Your task to perform on an android device: open app "Clock" Image 0: 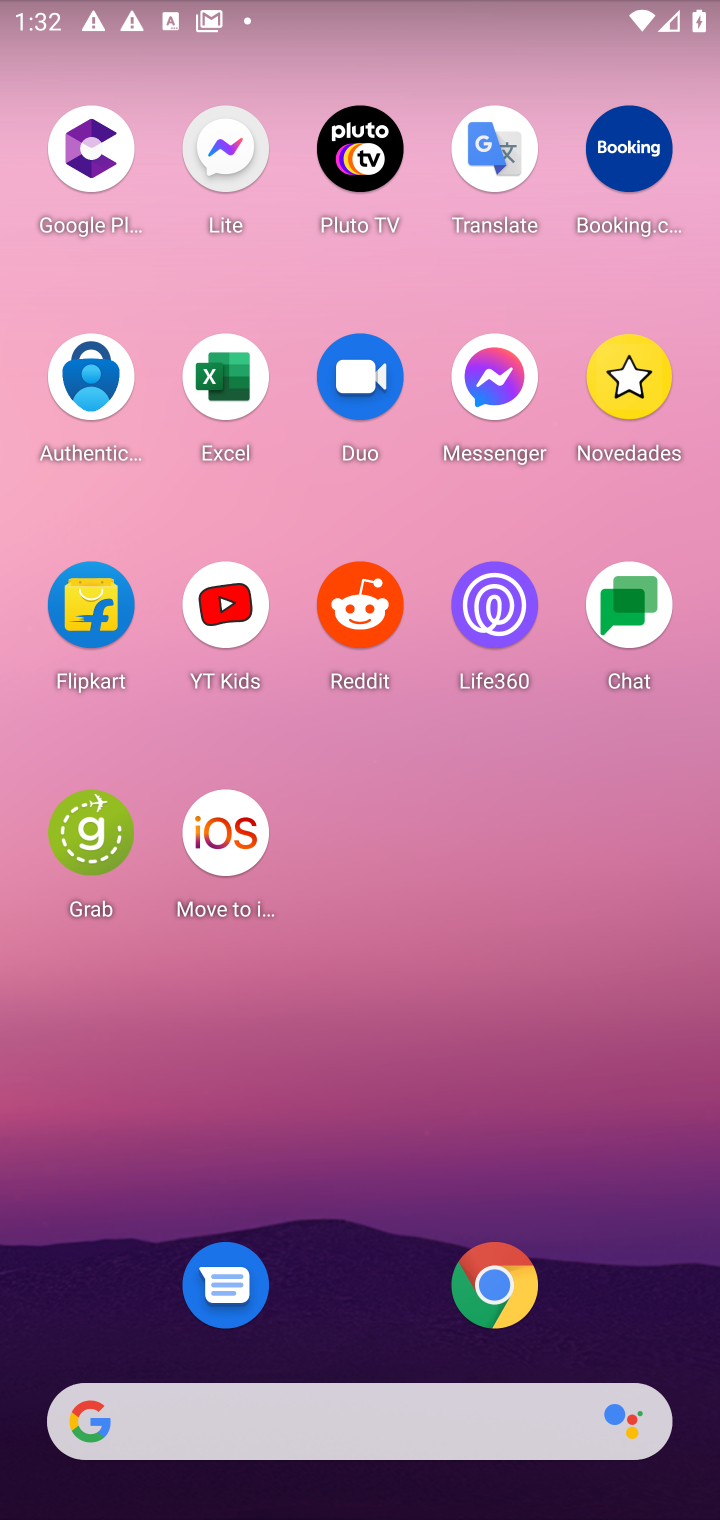
Step 0: drag from (472, 1162) to (554, 111)
Your task to perform on an android device: open app "Clock" Image 1: 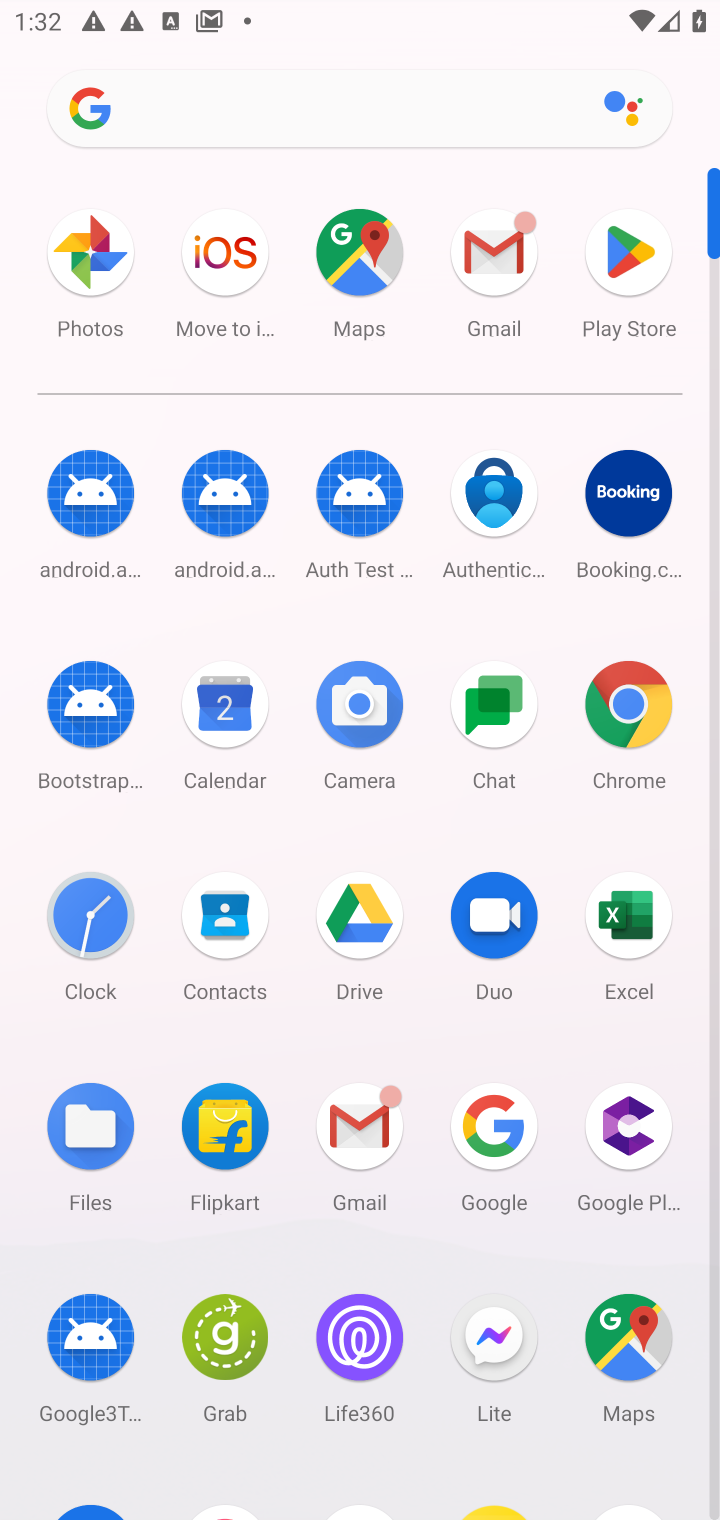
Step 1: drag from (434, 1230) to (507, 545)
Your task to perform on an android device: open app "Clock" Image 2: 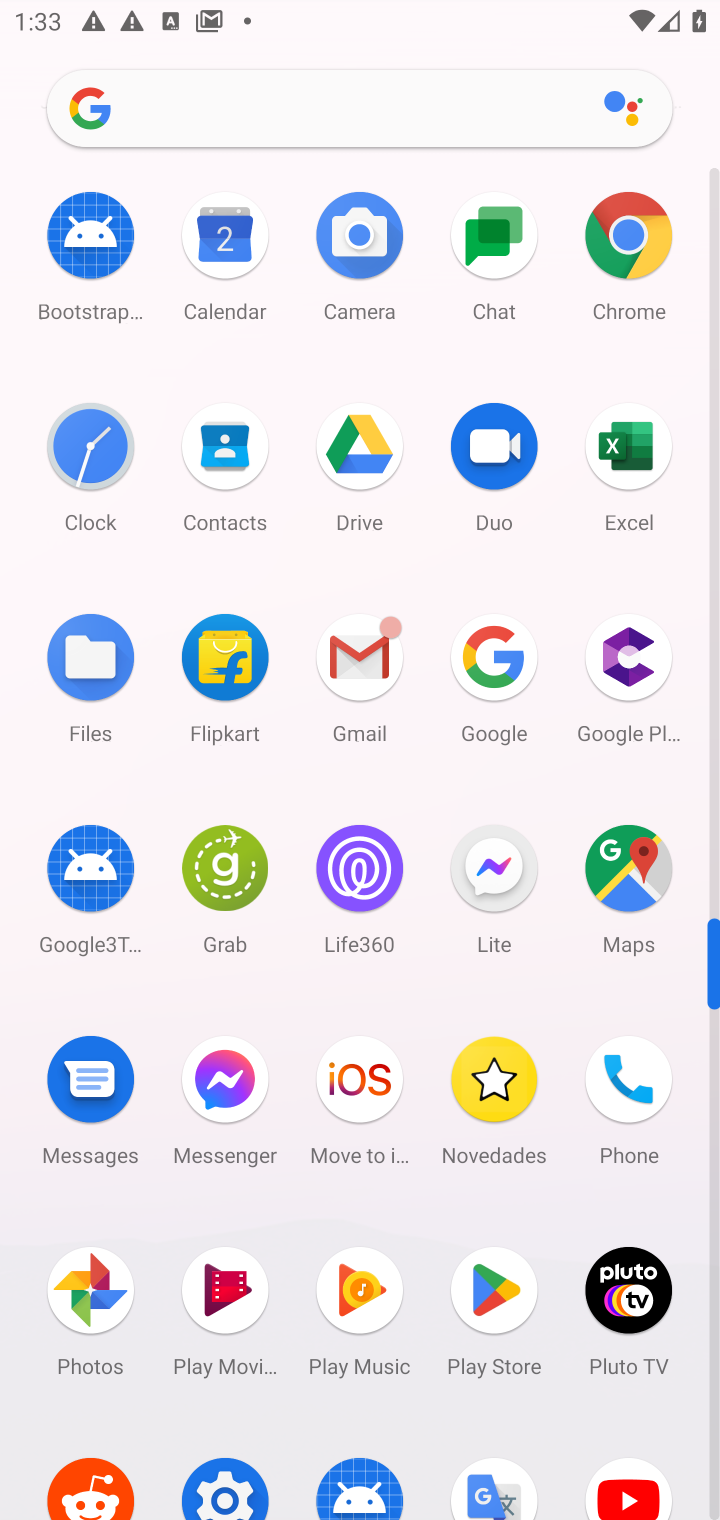
Step 2: click (484, 1293)
Your task to perform on an android device: open app "Clock" Image 3: 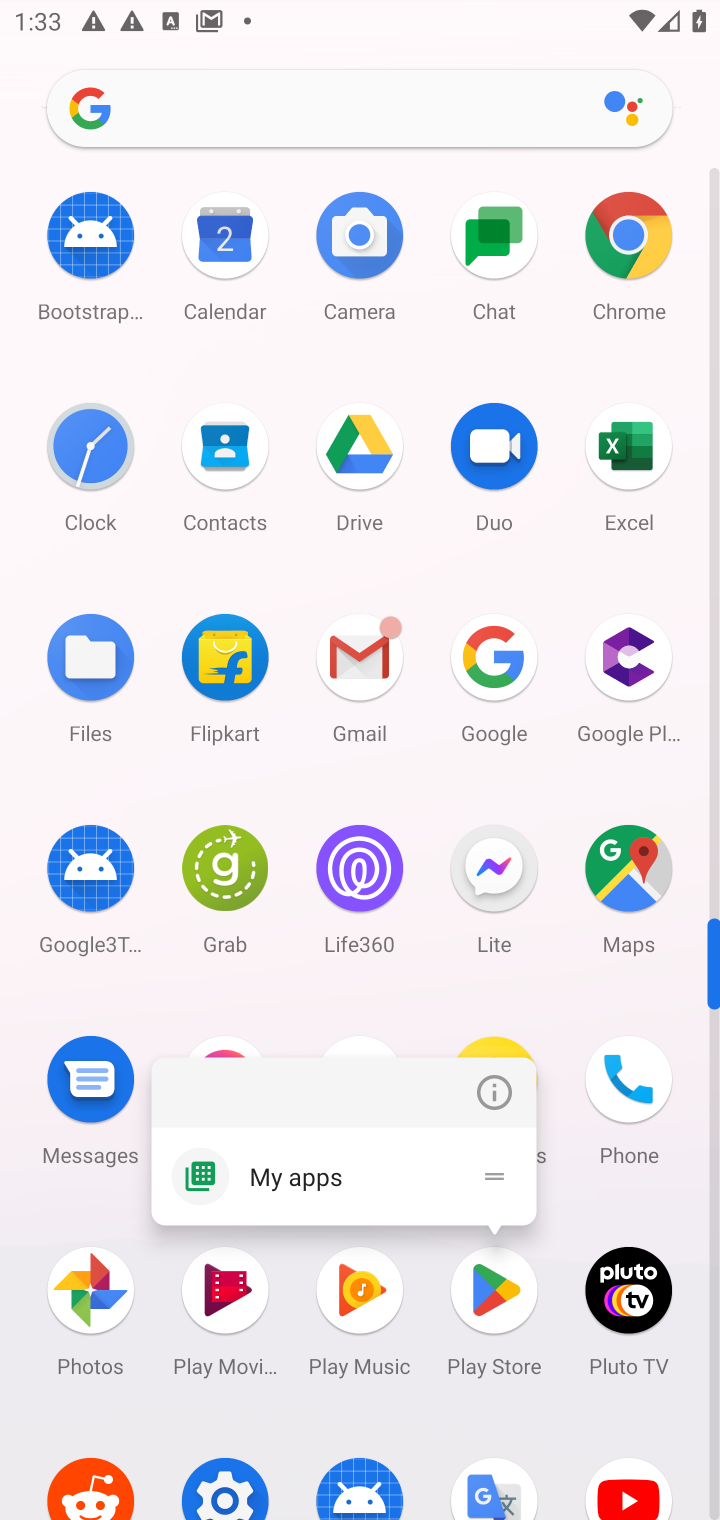
Step 3: click (487, 1273)
Your task to perform on an android device: open app "Clock" Image 4: 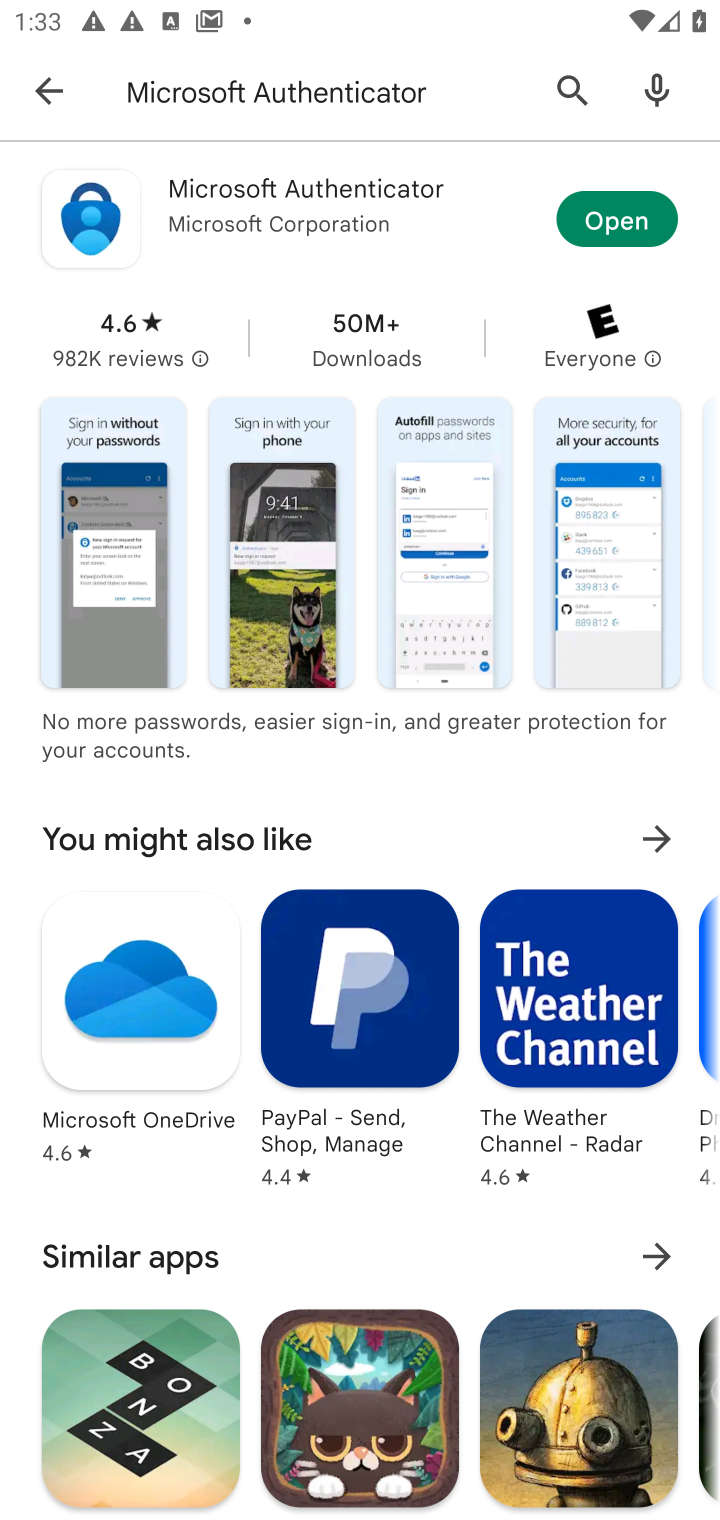
Step 4: click (413, 92)
Your task to perform on an android device: open app "Clock" Image 5: 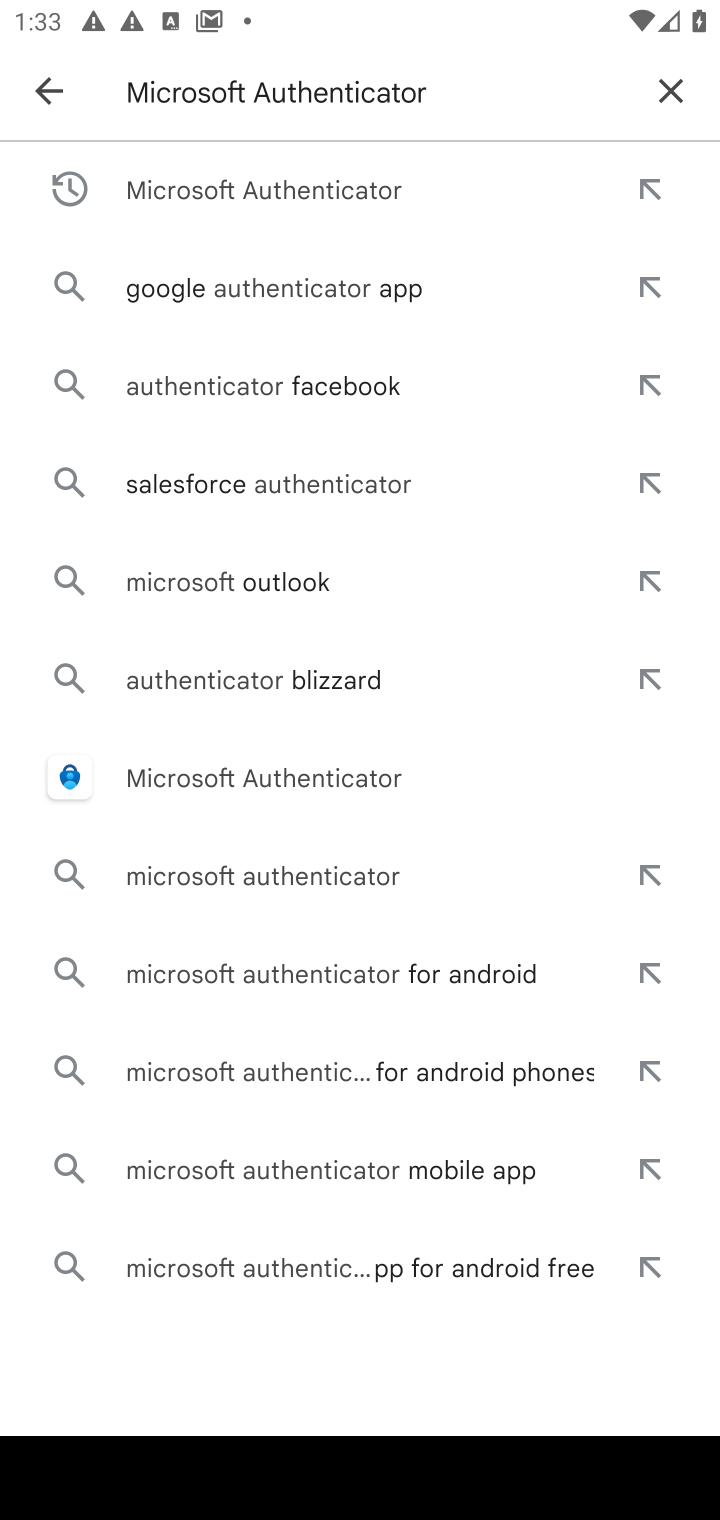
Step 5: click (669, 83)
Your task to perform on an android device: open app "Clock" Image 6: 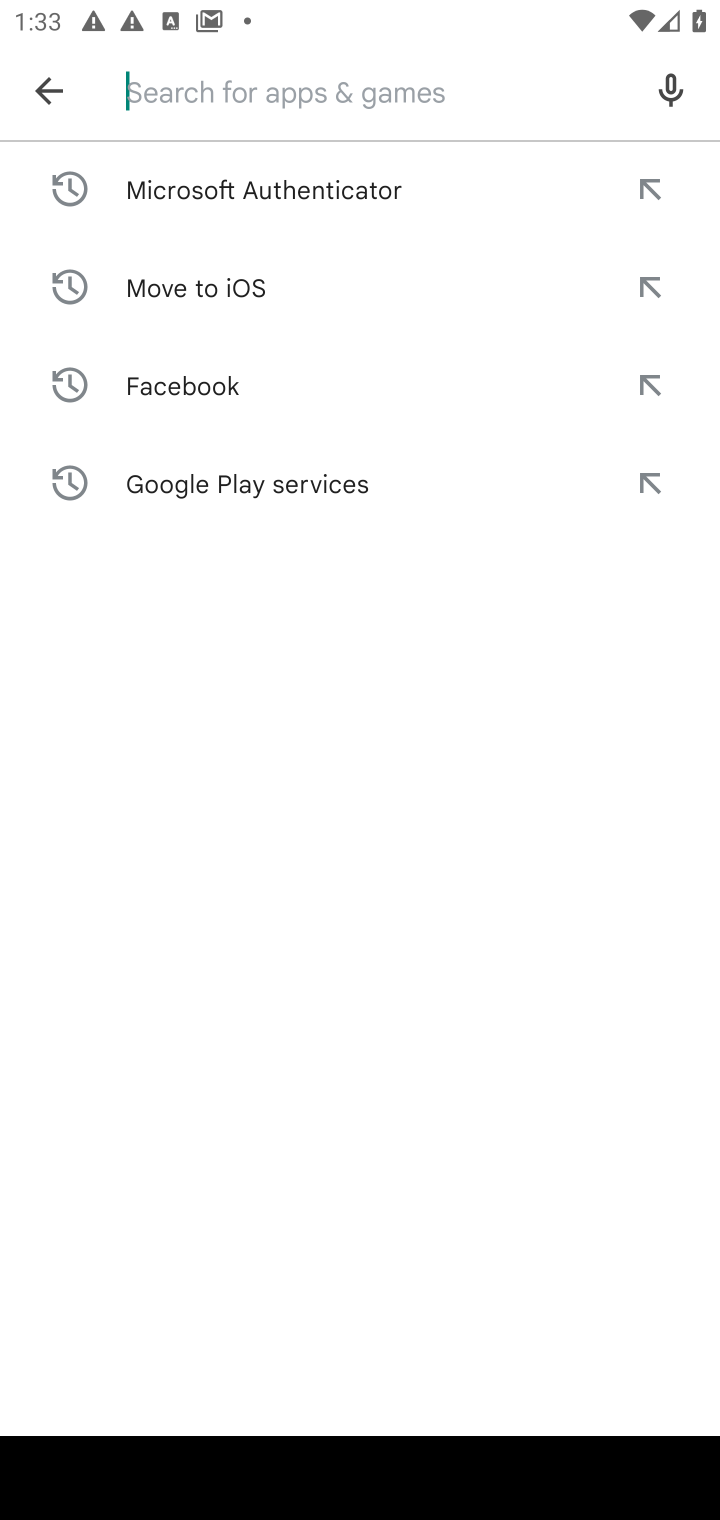
Step 6: type "Clock"
Your task to perform on an android device: open app "Clock" Image 7: 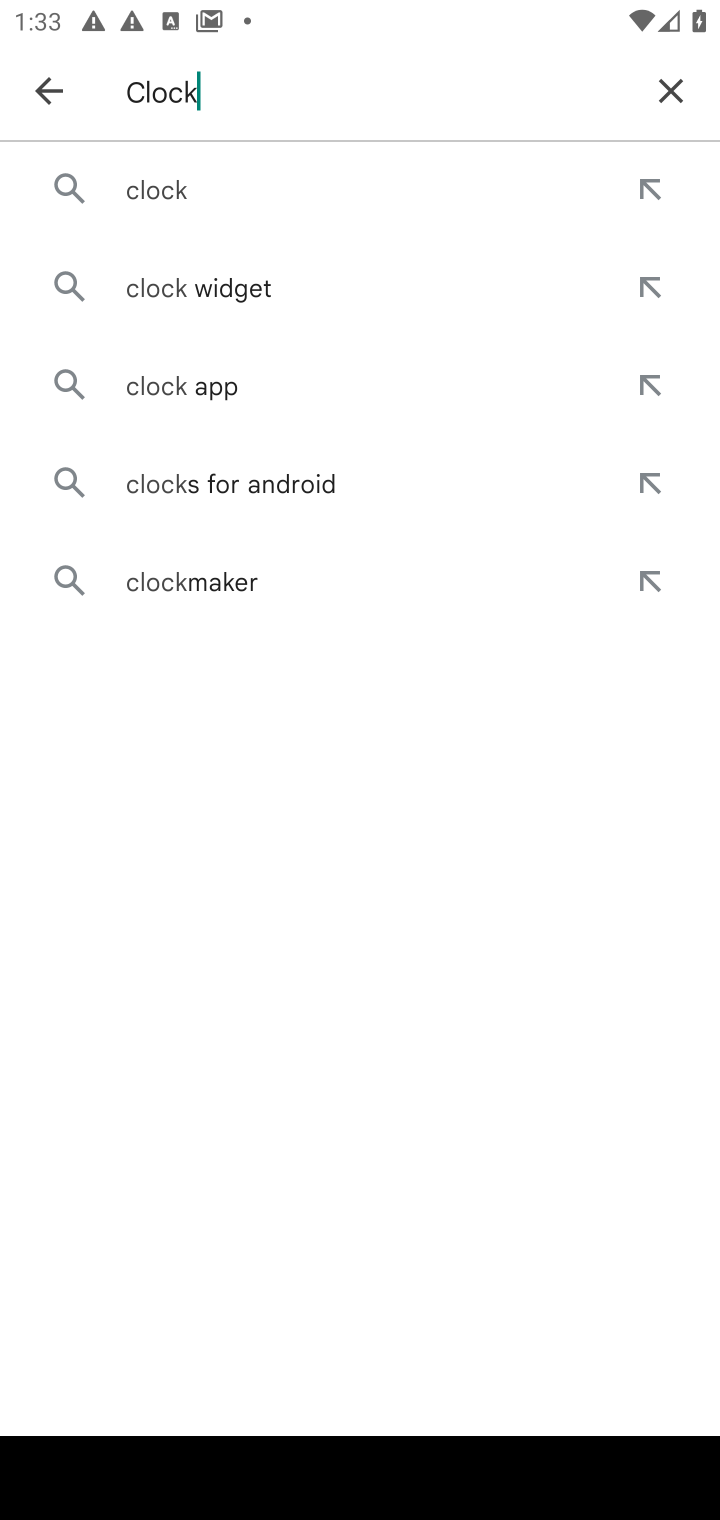
Step 7: press enter
Your task to perform on an android device: open app "Clock" Image 8: 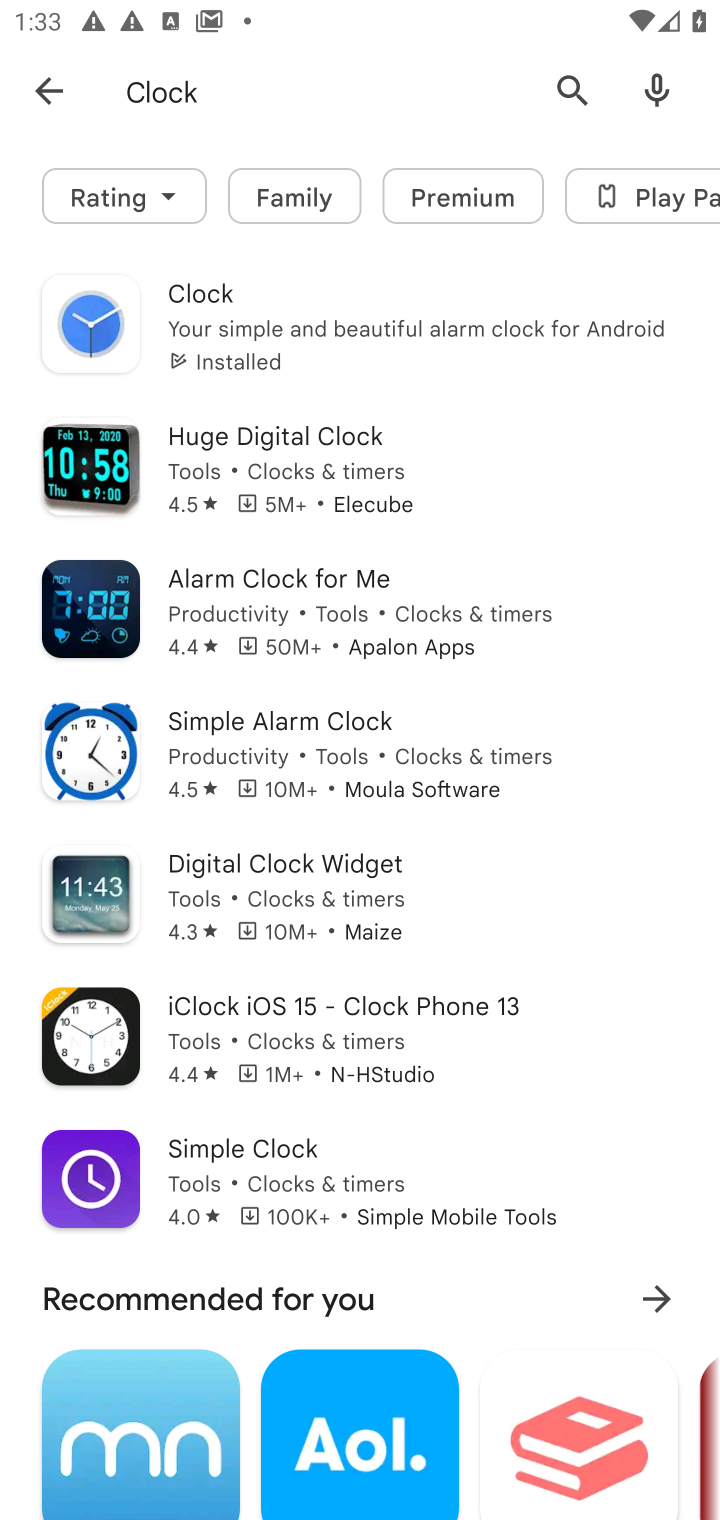
Step 8: click (481, 348)
Your task to perform on an android device: open app "Clock" Image 9: 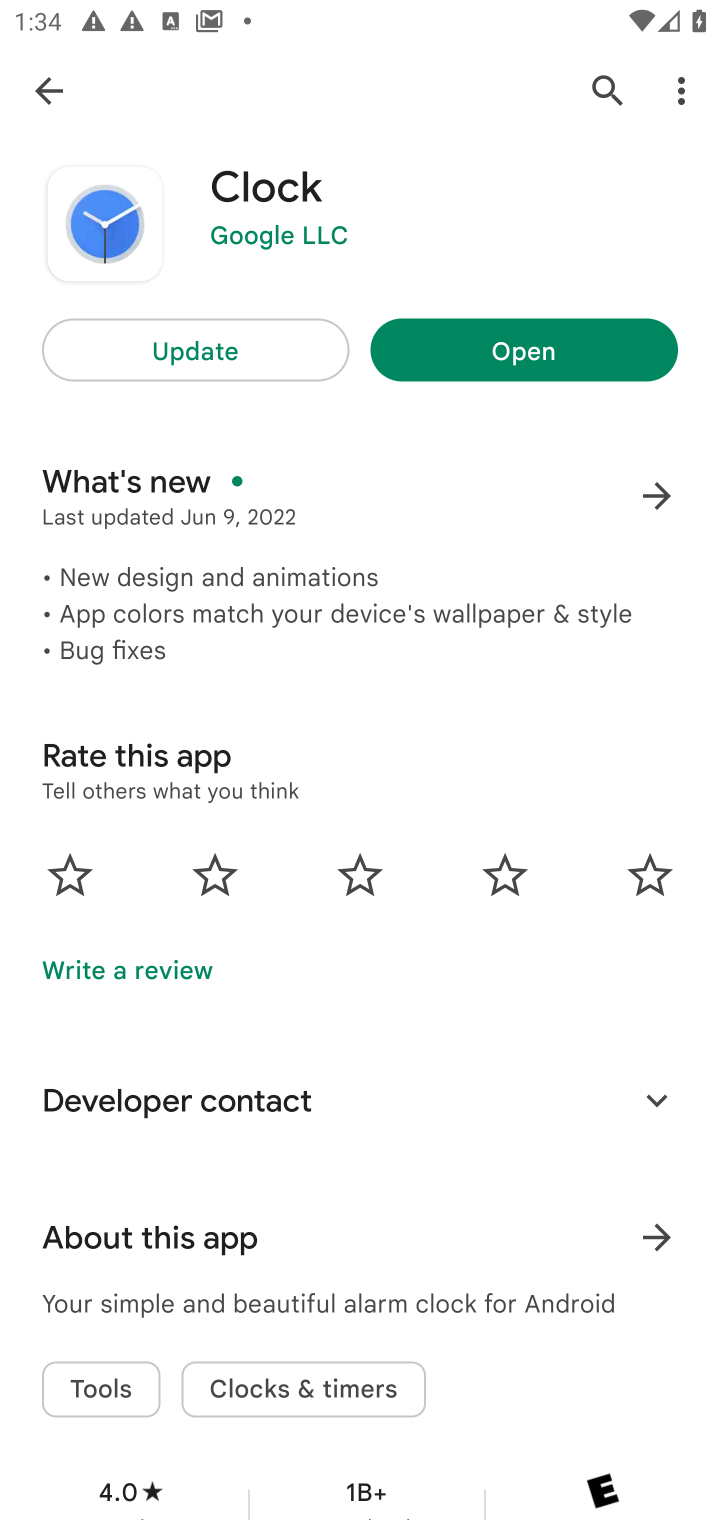
Step 9: click (483, 348)
Your task to perform on an android device: open app "Clock" Image 10: 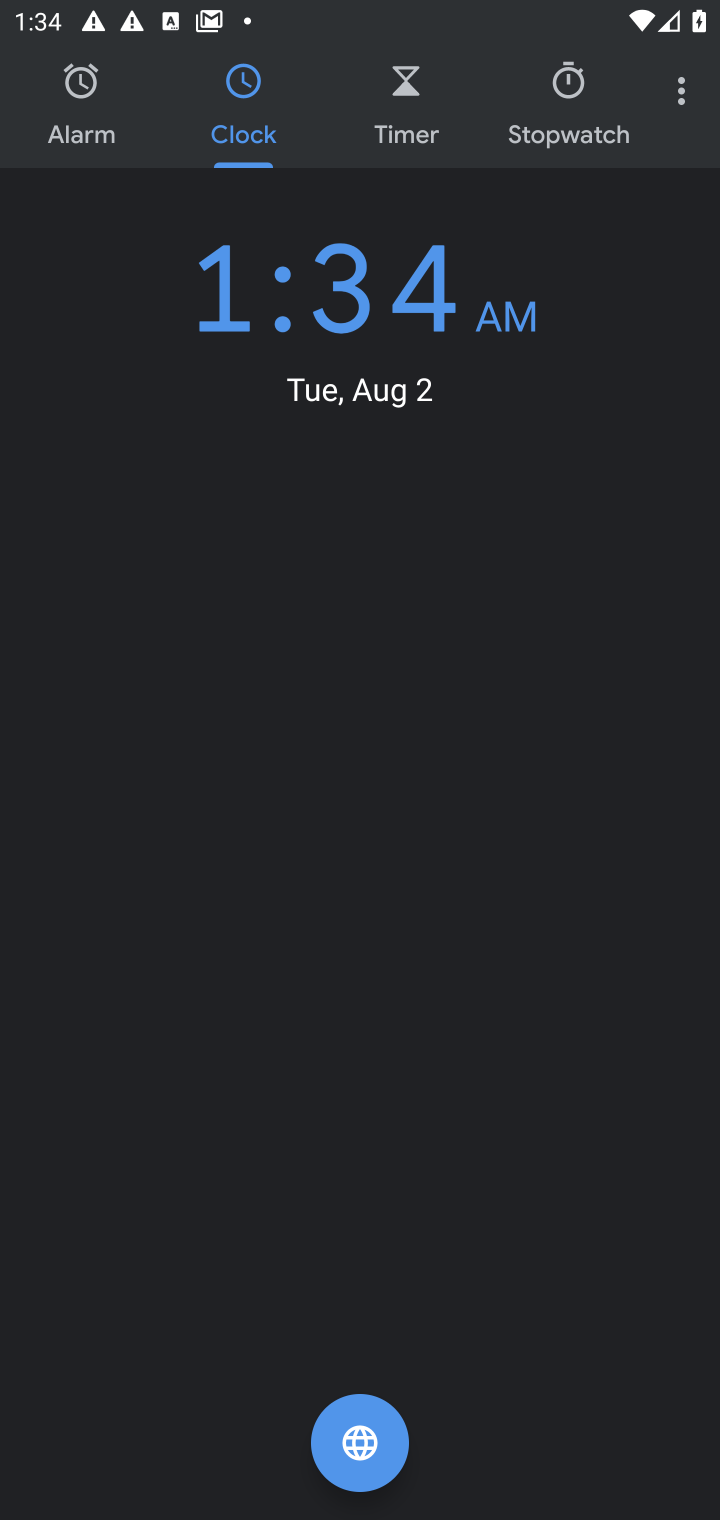
Step 10: task complete